Your task to perform on an android device: Go to battery settings Image 0: 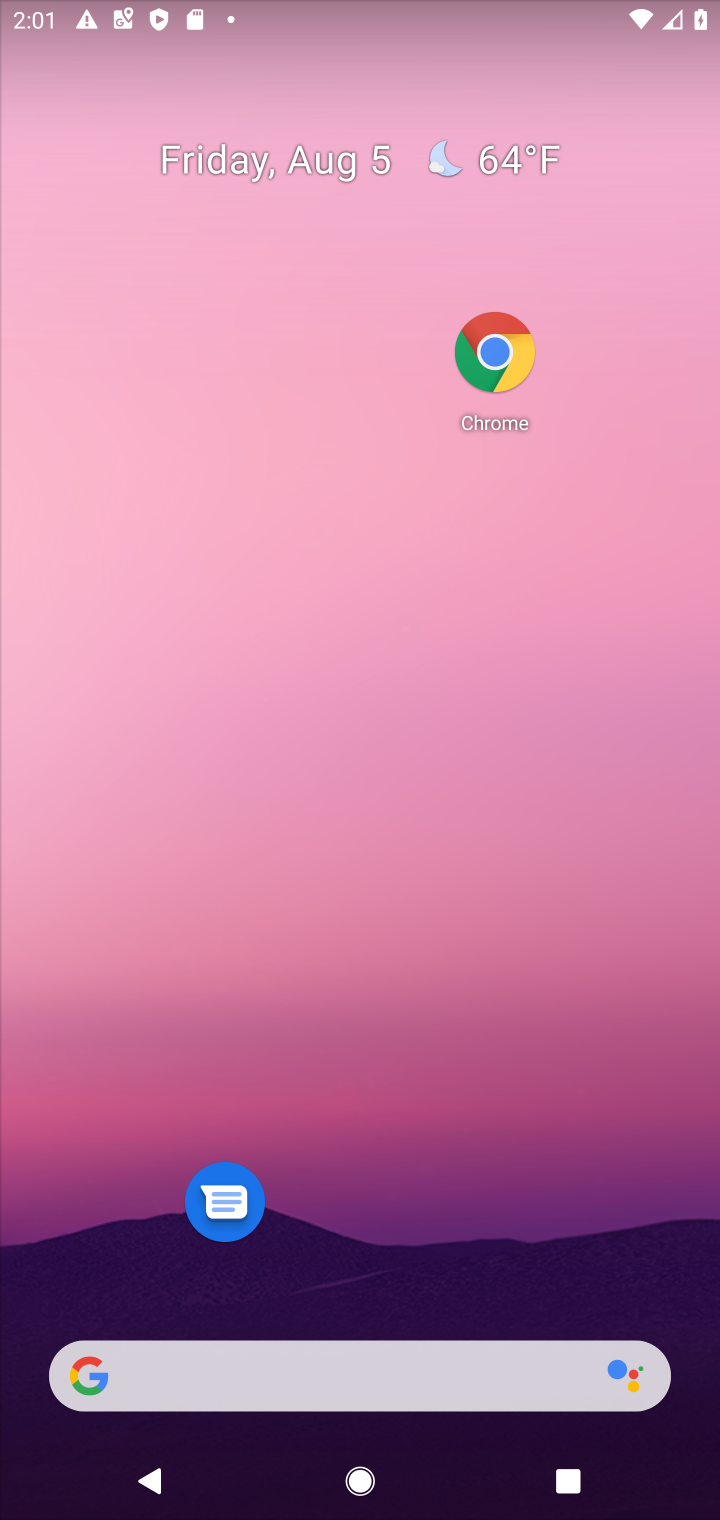
Step 0: drag from (504, 1112) to (618, 12)
Your task to perform on an android device: Go to battery settings Image 1: 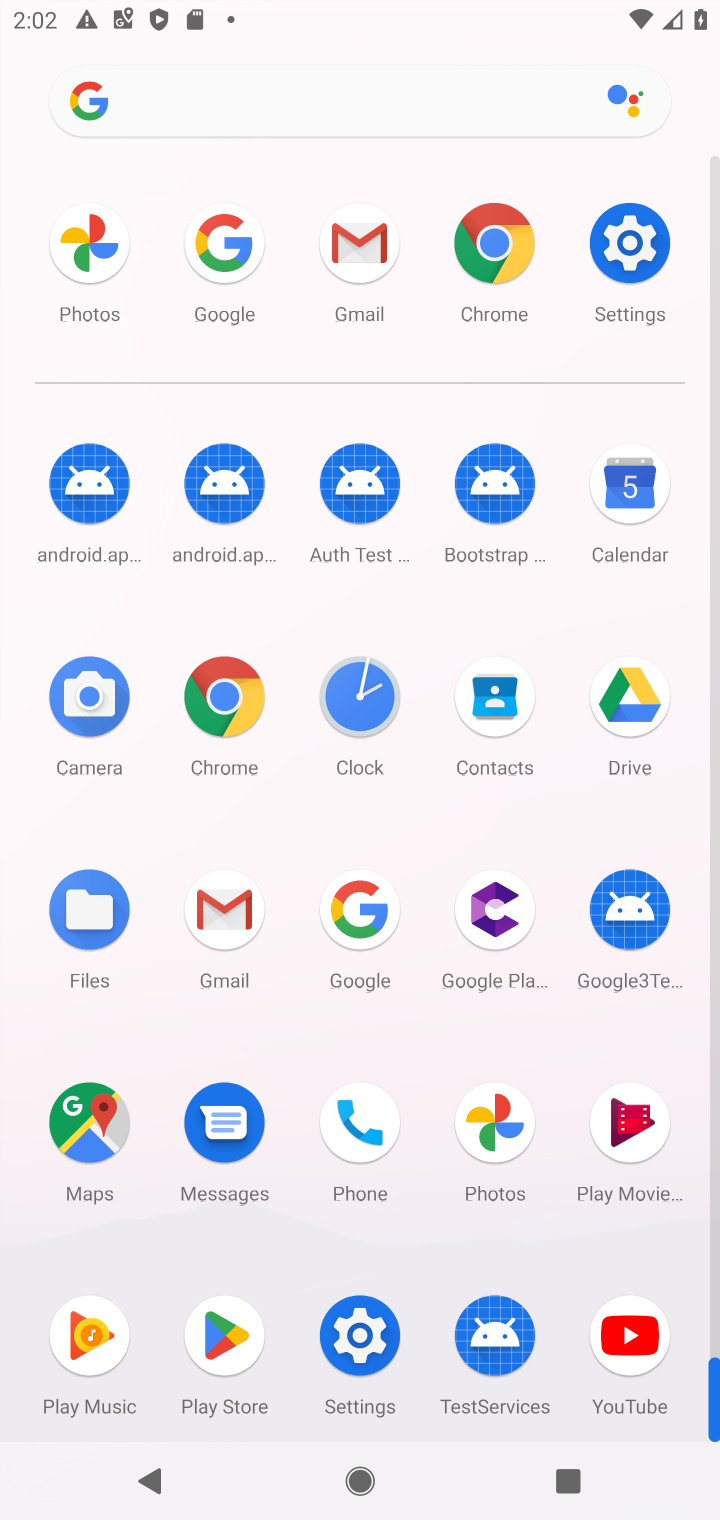
Step 1: click (364, 1317)
Your task to perform on an android device: Go to battery settings Image 2: 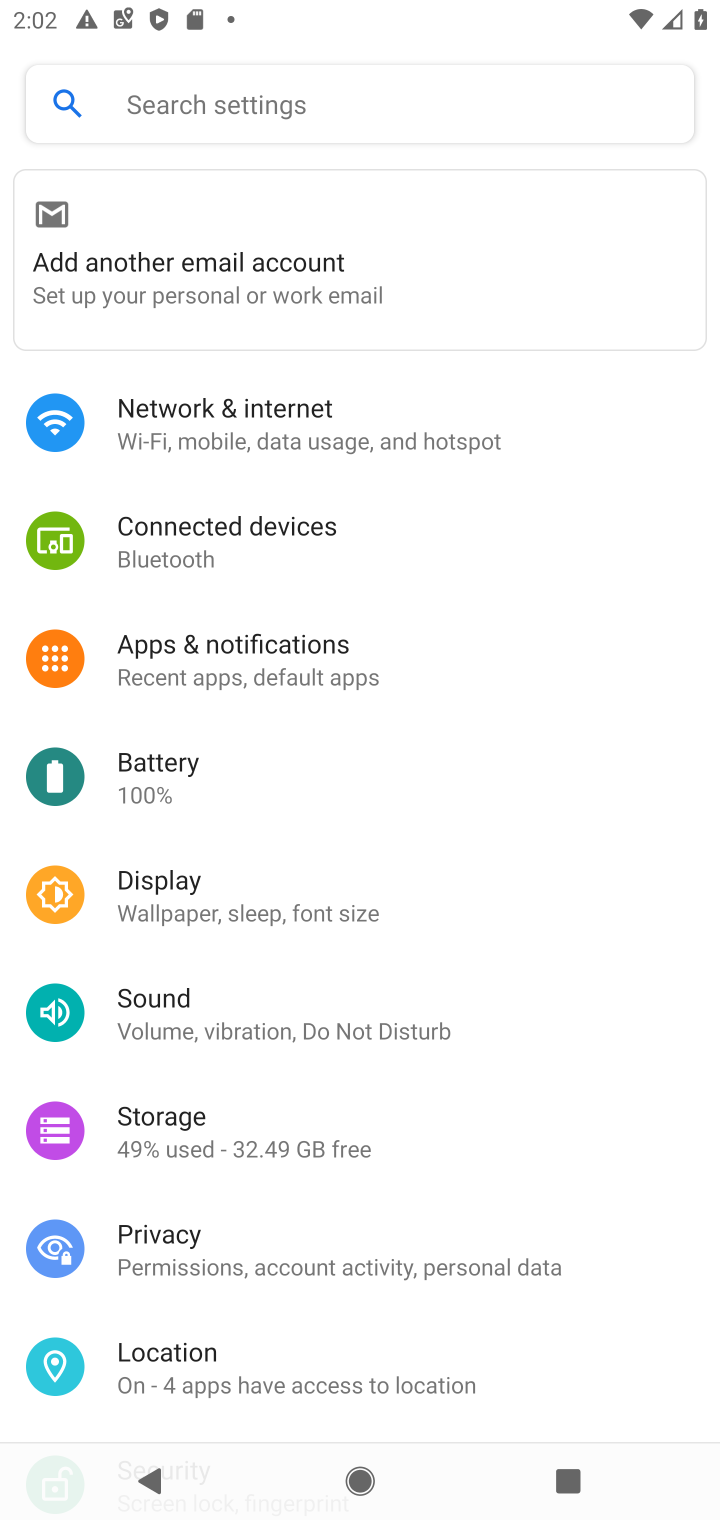
Step 2: click (128, 775)
Your task to perform on an android device: Go to battery settings Image 3: 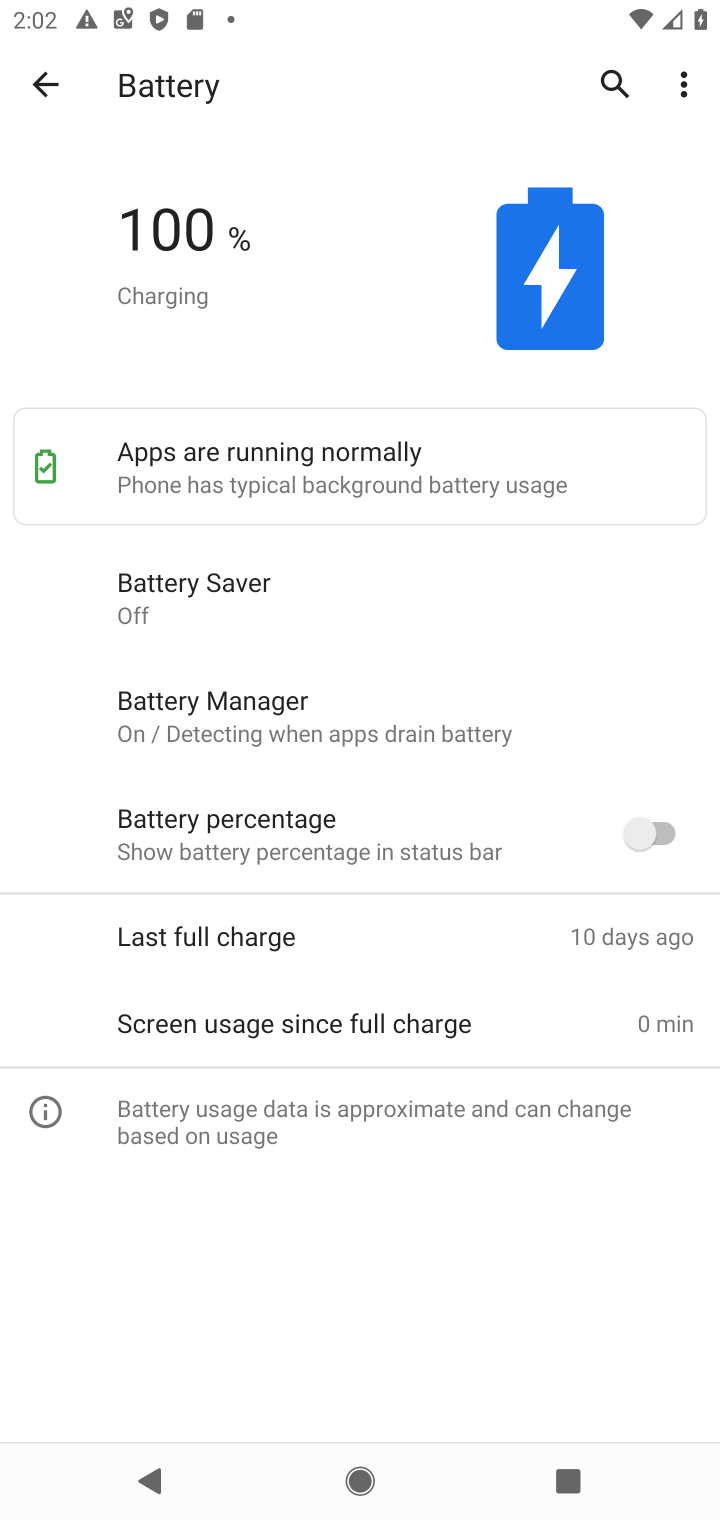
Step 3: task complete